Your task to perform on an android device: Is it going to rain tomorrow? Image 0: 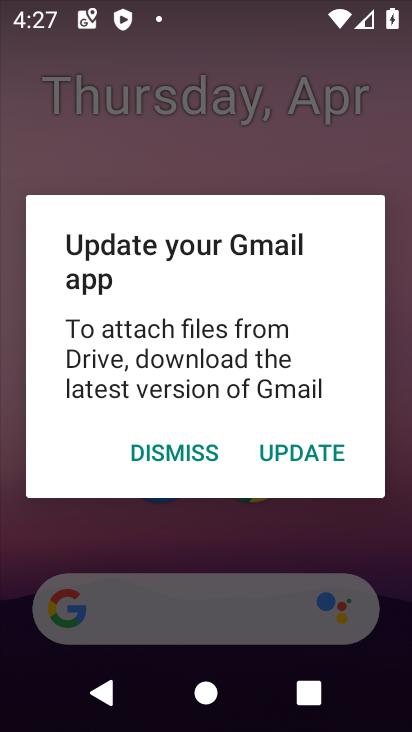
Step 0: click (215, 454)
Your task to perform on an android device: Is it going to rain tomorrow? Image 1: 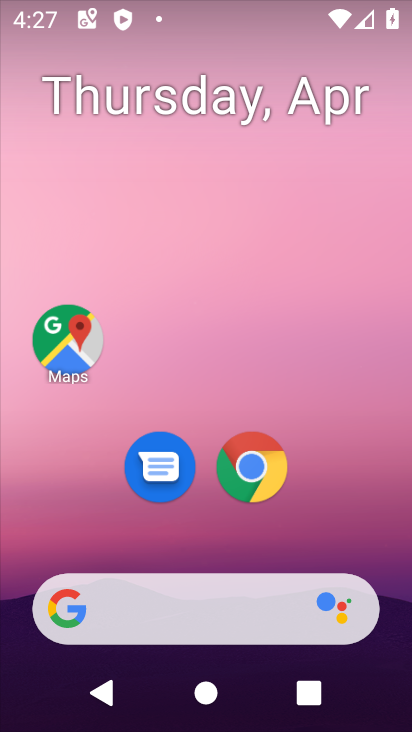
Step 1: click (179, 600)
Your task to perform on an android device: Is it going to rain tomorrow? Image 2: 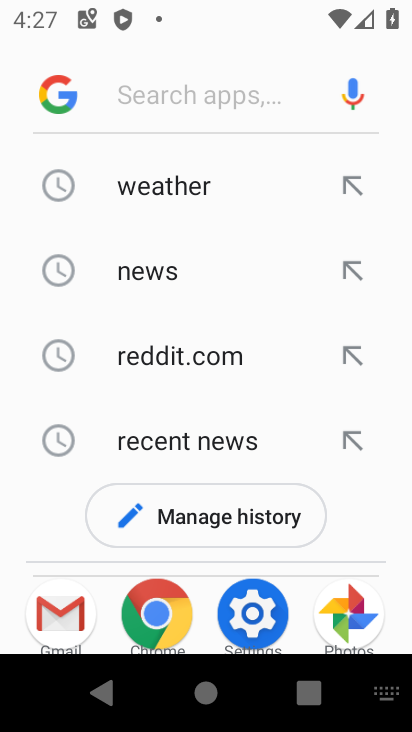
Step 2: click (151, 201)
Your task to perform on an android device: Is it going to rain tomorrow? Image 3: 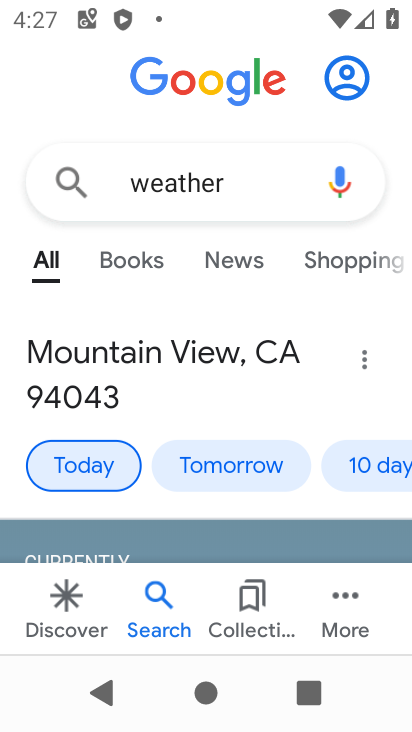
Step 3: drag from (220, 425) to (258, 274)
Your task to perform on an android device: Is it going to rain tomorrow? Image 4: 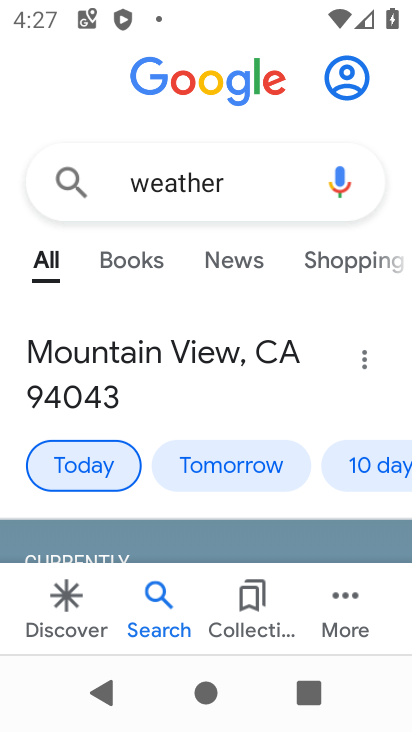
Step 4: click (233, 453)
Your task to perform on an android device: Is it going to rain tomorrow? Image 5: 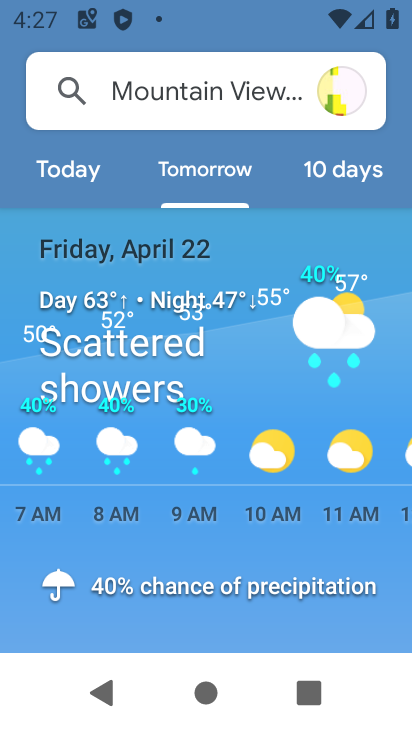
Step 5: task complete